Your task to perform on an android device: check battery use Image 0: 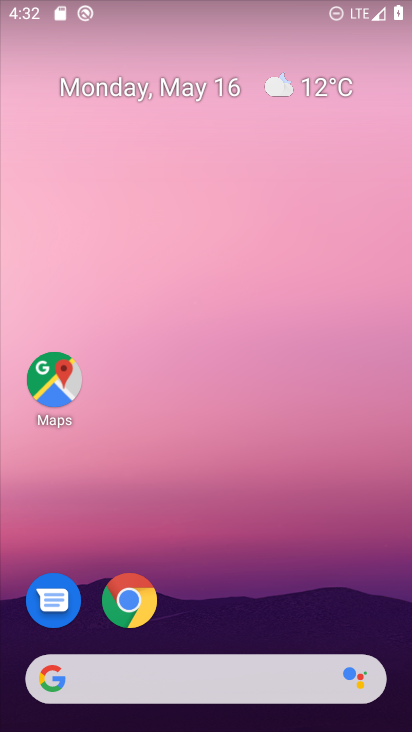
Step 0: press home button
Your task to perform on an android device: check battery use Image 1: 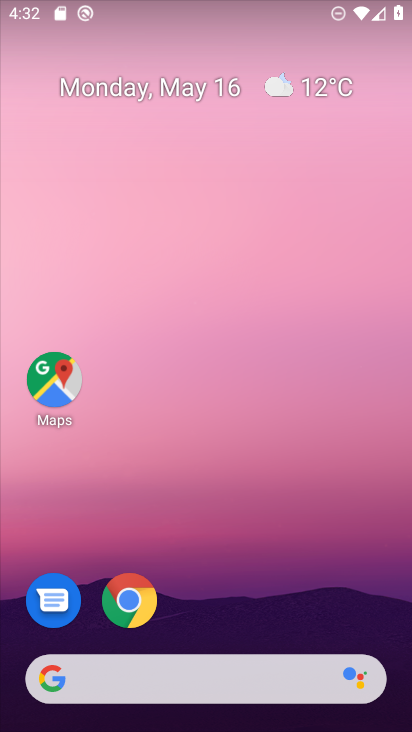
Step 1: drag from (271, 581) to (328, 12)
Your task to perform on an android device: check battery use Image 2: 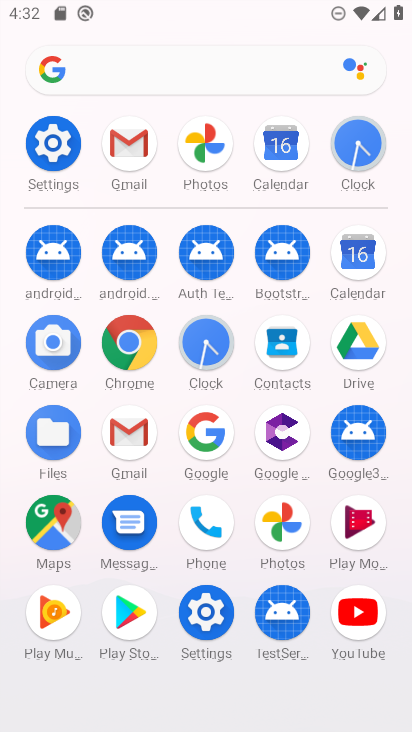
Step 2: click (54, 131)
Your task to perform on an android device: check battery use Image 3: 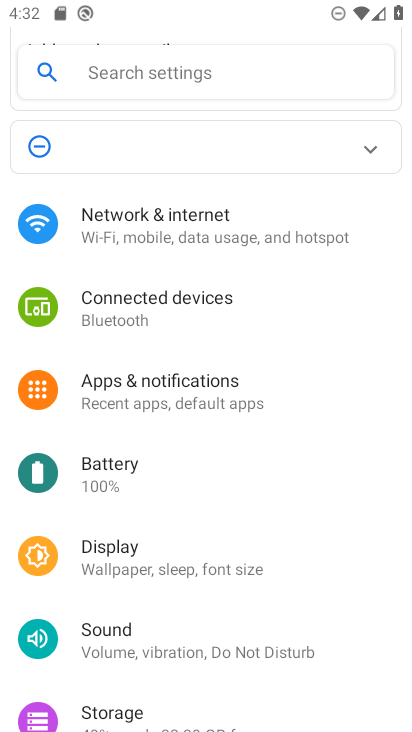
Step 3: click (139, 484)
Your task to perform on an android device: check battery use Image 4: 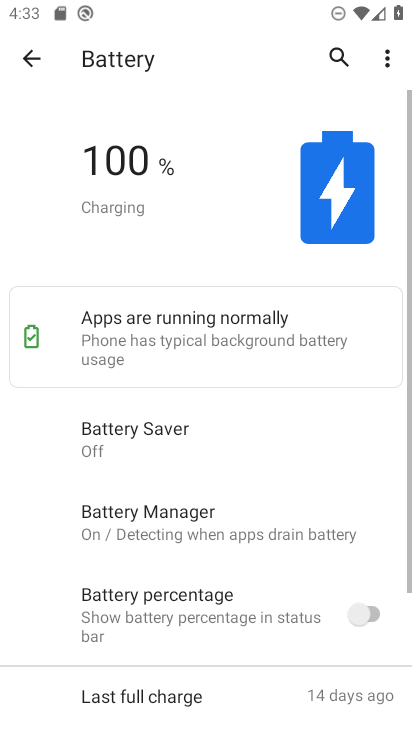
Step 4: click (387, 51)
Your task to perform on an android device: check battery use Image 5: 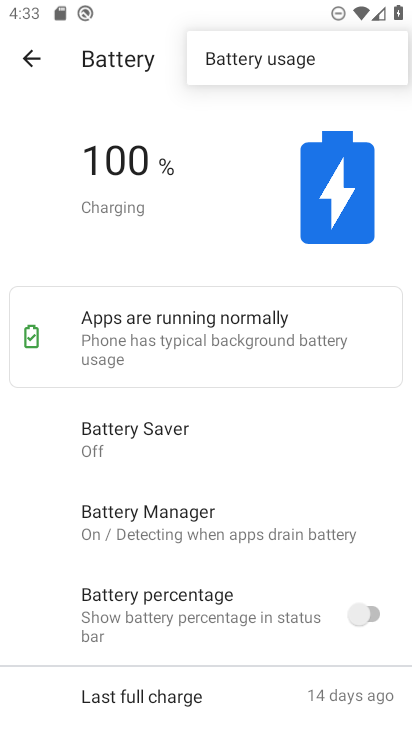
Step 5: click (268, 52)
Your task to perform on an android device: check battery use Image 6: 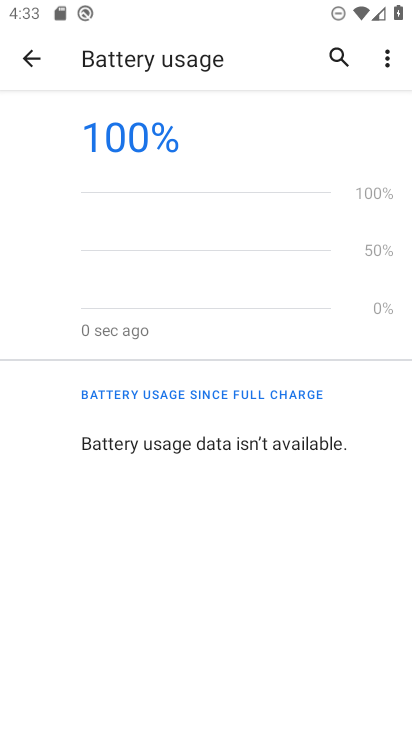
Step 6: task complete